Your task to perform on an android device: open app "The Home Depot" Image 0: 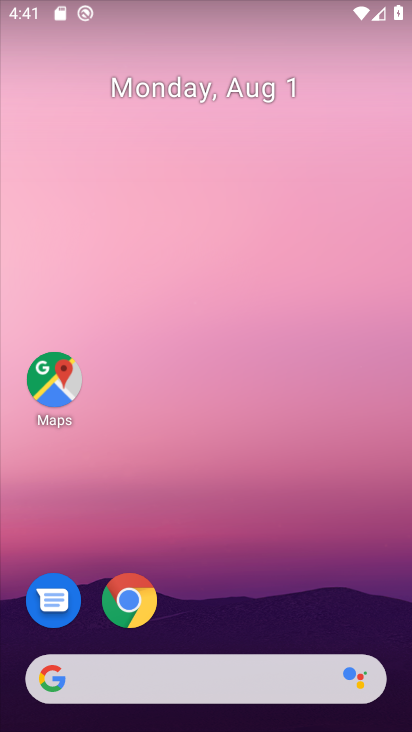
Step 0: drag from (272, 593) to (270, 161)
Your task to perform on an android device: open app "The Home Depot" Image 1: 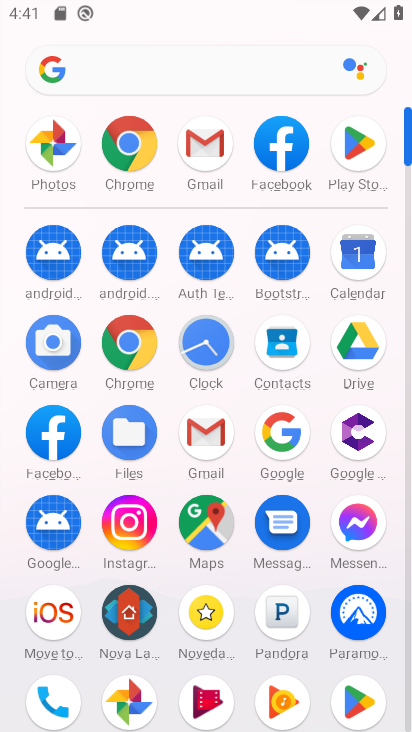
Step 1: click (367, 136)
Your task to perform on an android device: open app "The Home Depot" Image 2: 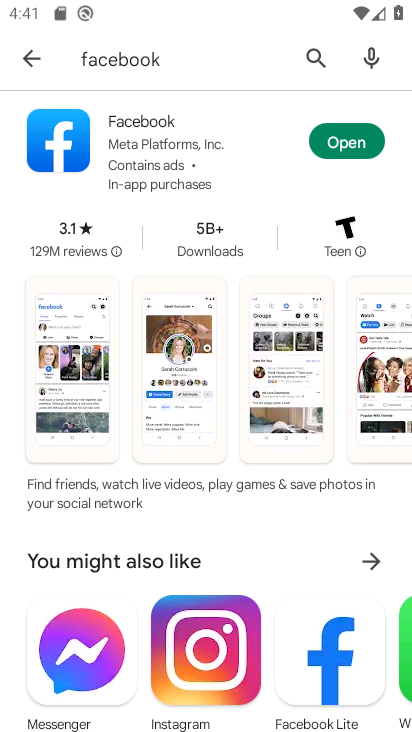
Step 2: click (243, 71)
Your task to perform on an android device: open app "The Home Depot" Image 3: 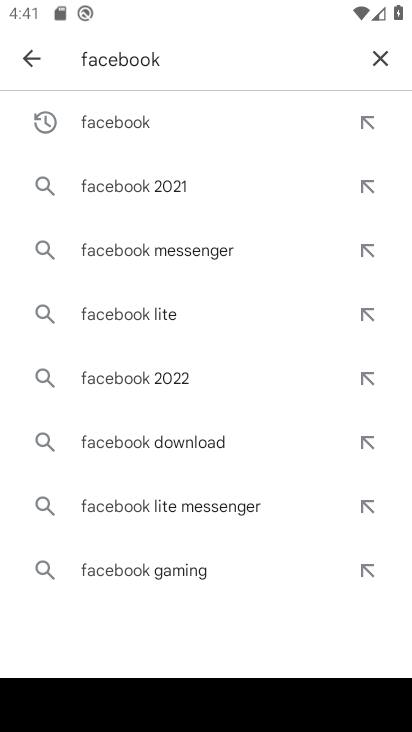
Step 3: click (387, 62)
Your task to perform on an android device: open app "The Home Depot" Image 4: 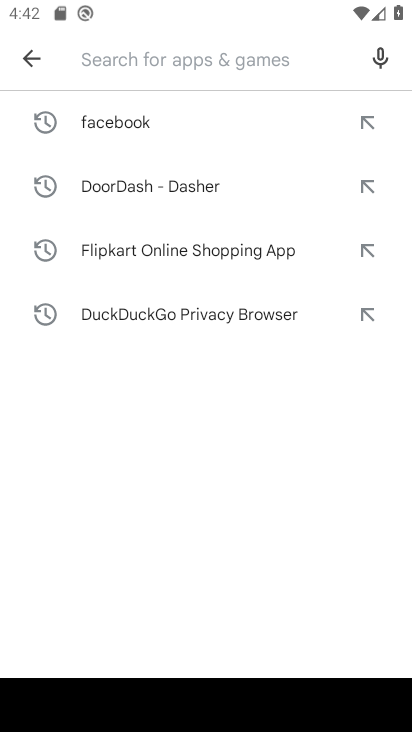
Step 4: type "The Home Depot"
Your task to perform on an android device: open app "The Home Depot" Image 5: 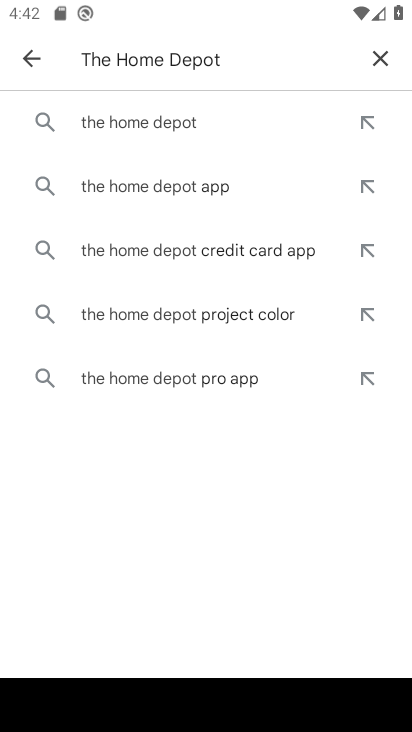
Step 5: press enter
Your task to perform on an android device: open app "The Home Depot" Image 6: 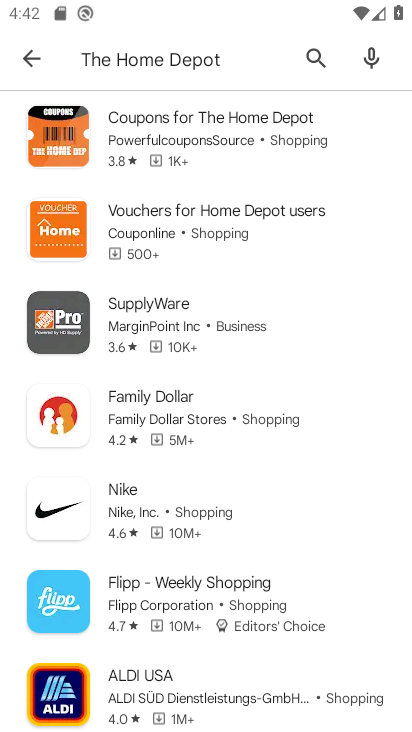
Step 6: task complete